Your task to perform on an android device: Open Chrome and go to settings Image 0: 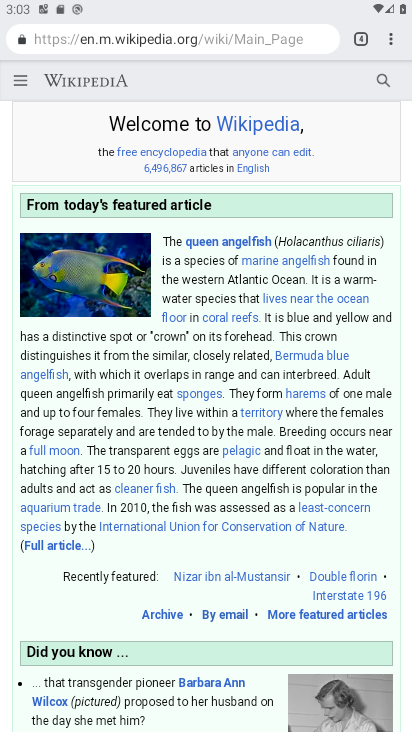
Step 0: press home button
Your task to perform on an android device: Open Chrome and go to settings Image 1: 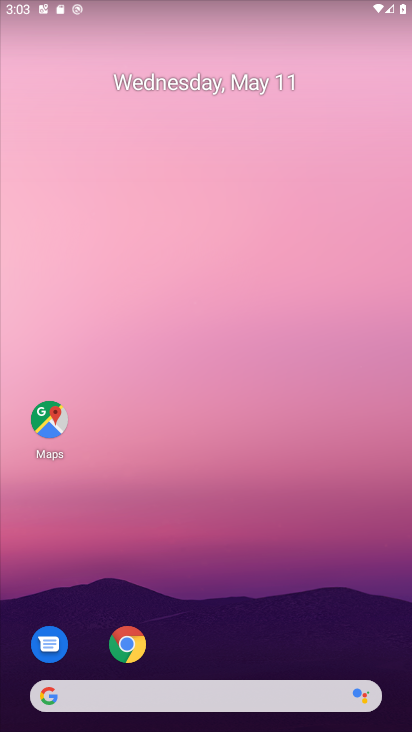
Step 1: drag from (202, 679) to (208, 8)
Your task to perform on an android device: Open Chrome and go to settings Image 2: 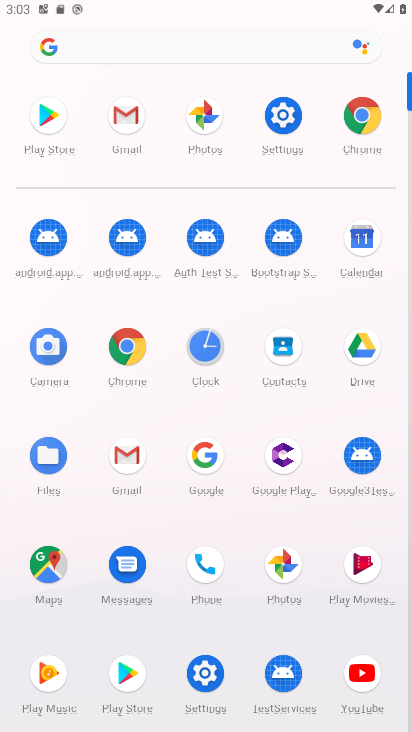
Step 2: click (126, 352)
Your task to perform on an android device: Open Chrome and go to settings Image 3: 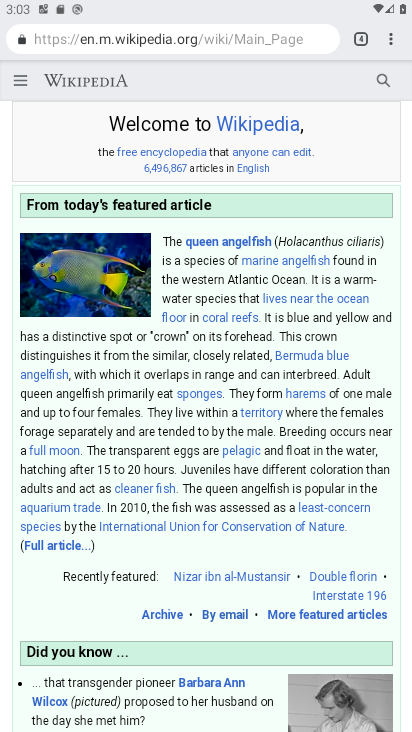
Step 3: click (389, 37)
Your task to perform on an android device: Open Chrome and go to settings Image 4: 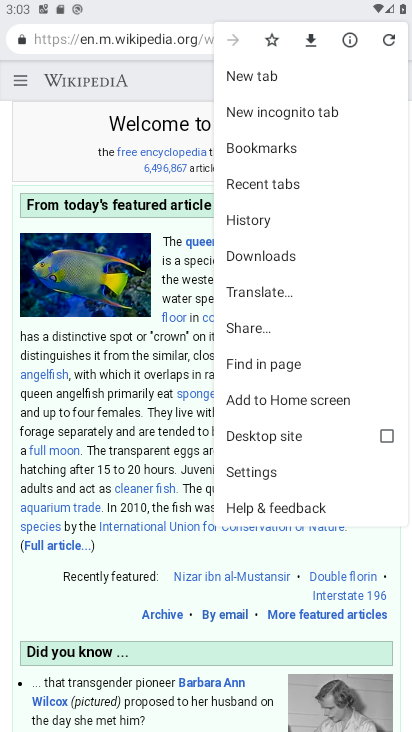
Step 4: click (256, 472)
Your task to perform on an android device: Open Chrome and go to settings Image 5: 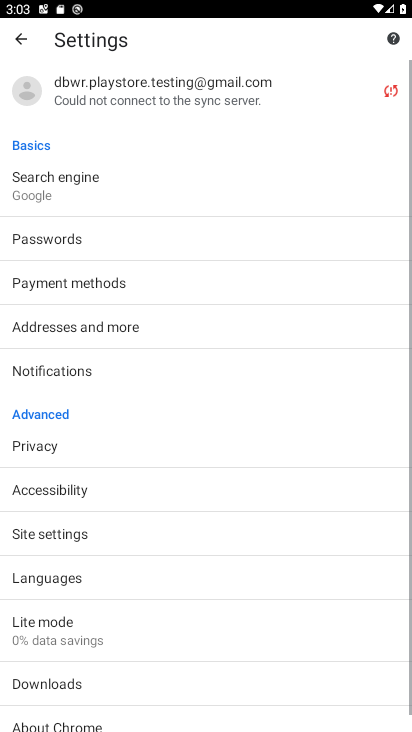
Step 5: task complete